Your task to perform on an android device: Check the news Image 0: 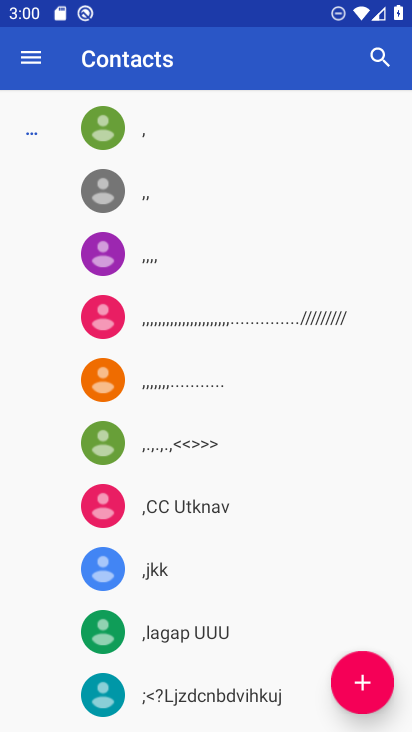
Step 0: press home button
Your task to perform on an android device: Check the news Image 1: 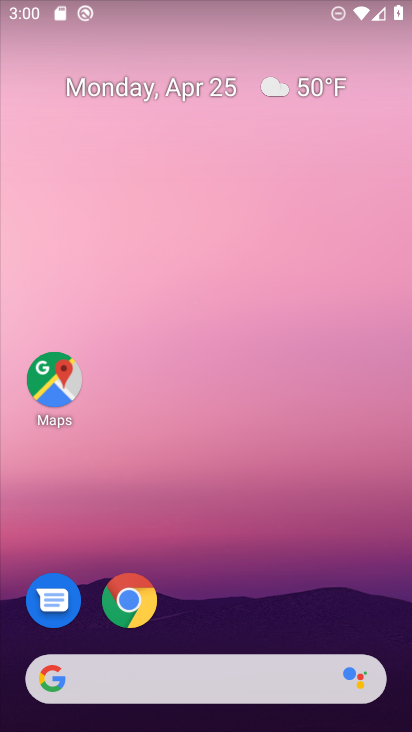
Step 1: task complete